Your task to perform on an android device: Open the Play Movies app and select the watchlist tab. Image 0: 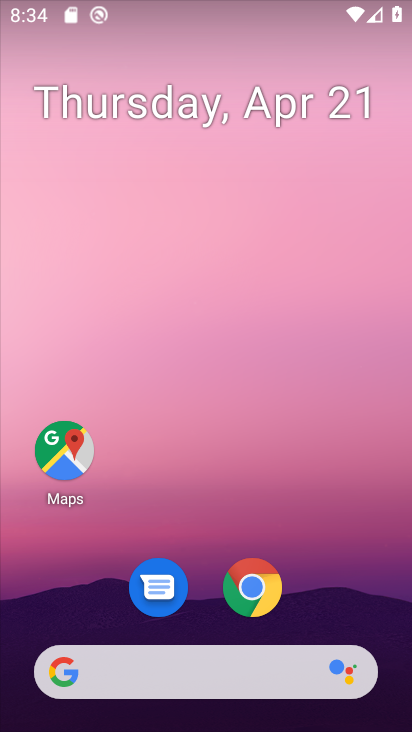
Step 0: drag from (370, 346) to (348, 195)
Your task to perform on an android device: Open the Play Movies app and select the watchlist tab. Image 1: 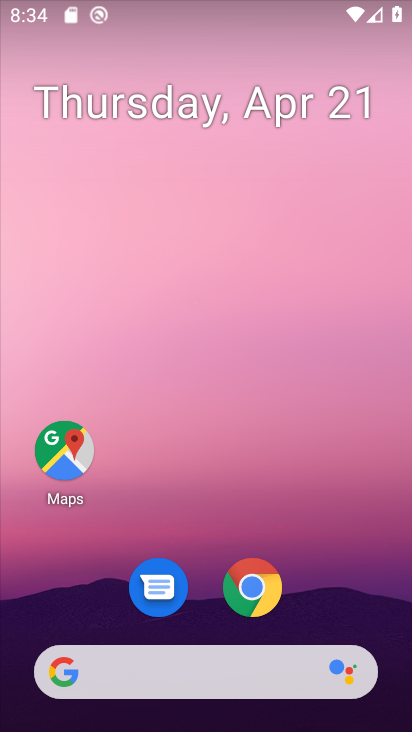
Step 1: drag from (345, 172) to (336, 4)
Your task to perform on an android device: Open the Play Movies app and select the watchlist tab. Image 2: 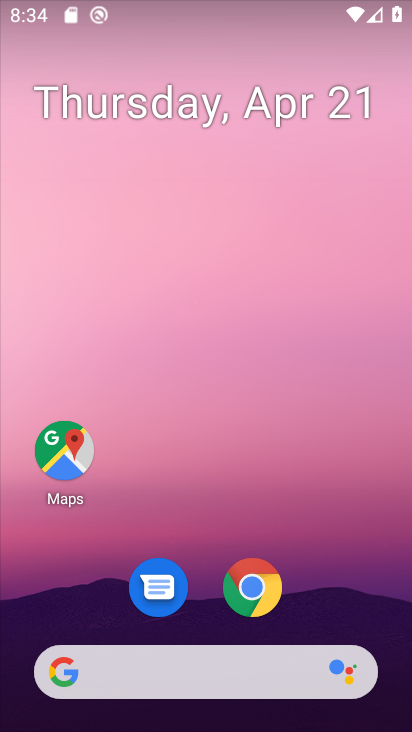
Step 2: drag from (385, 642) to (341, 101)
Your task to perform on an android device: Open the Play Movies app and select the watchlist tab. Image 3: 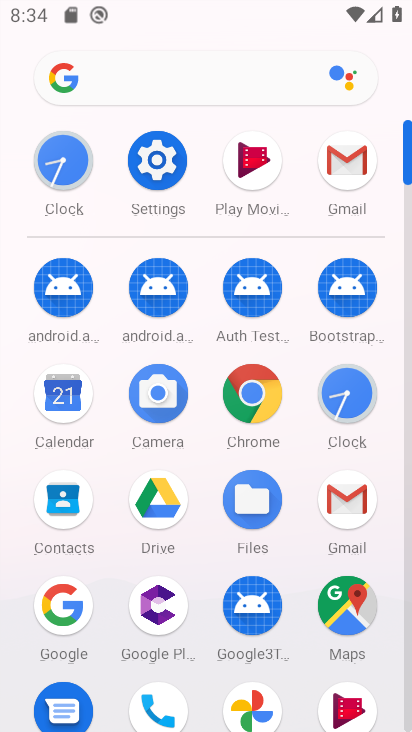
Step 3: click (329, 701)
Your task to perform on an android device: Open the Play Movies app and select the watchlist tab. Image 4: 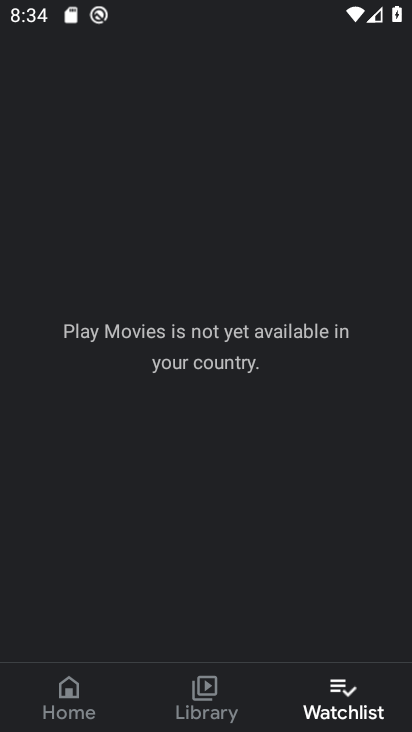
Step 4: click (329, 701)
Your task to perform on an android device: Open the Play Movies app and select the watchlist tab. Image 5: 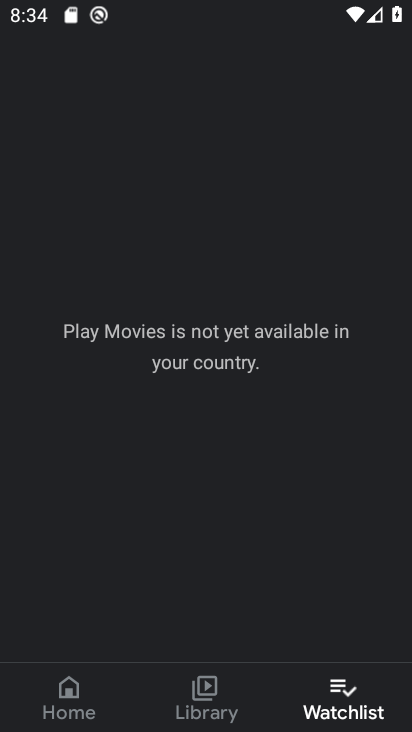
Step 5: task complete